Your task to perform on an android device: open app "Grab" Image 0: 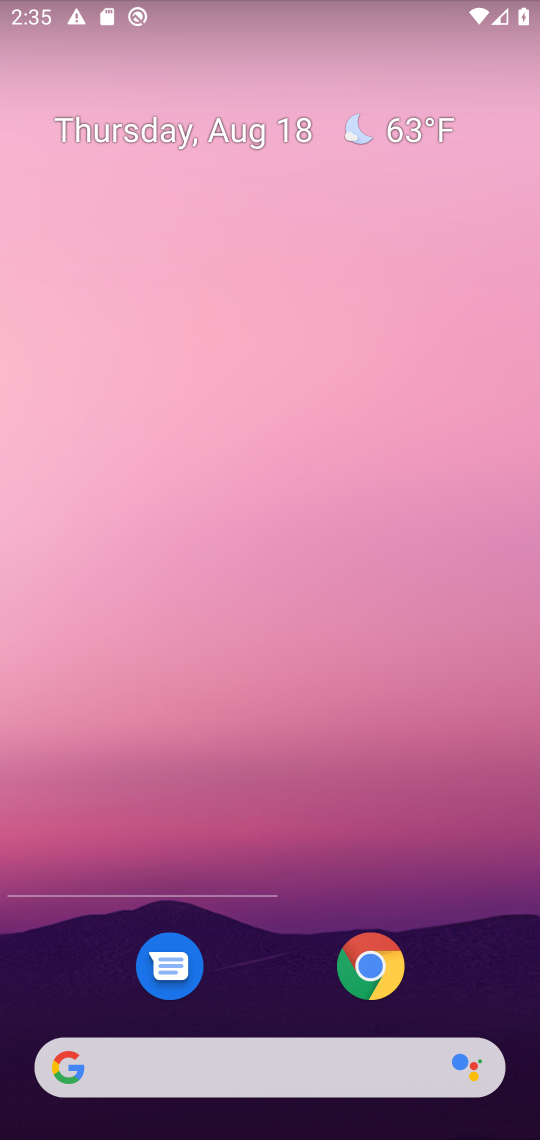
Step 0: press home button
Your task to perform on an android device: open app "Grab" Image 1: 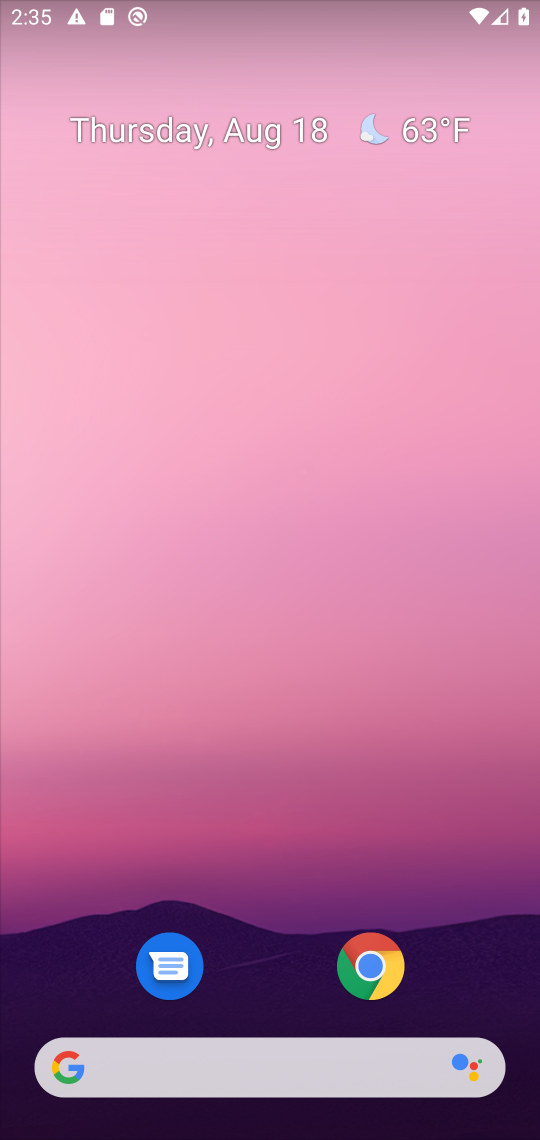
Step 1: drag from (293, 1014) to (353, 14)
Your task to perform on an android device: open app "Grab" Image 2: 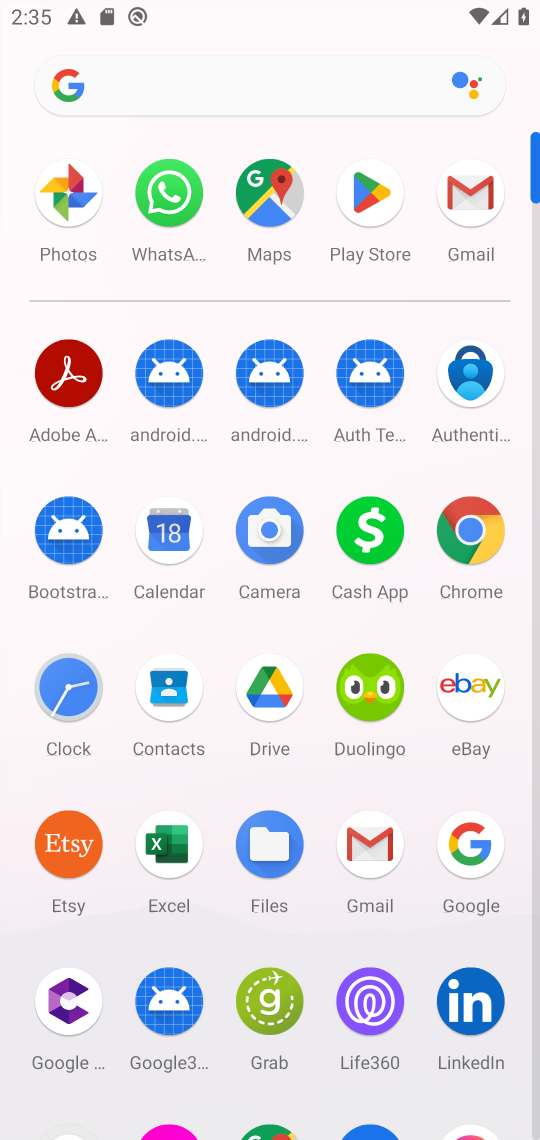
Step 2: click (368, 188)
Your task to perform on an android device: open app "Grab" Image 3: 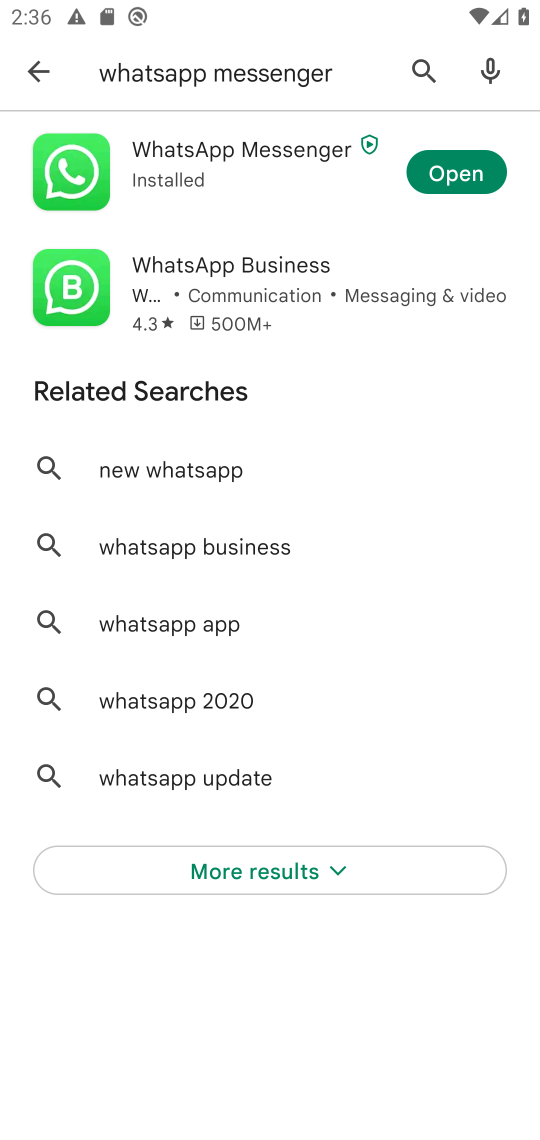
Step 3: click (425, 72)
Your task to perform on an android device: open app "Grab" Image 4: 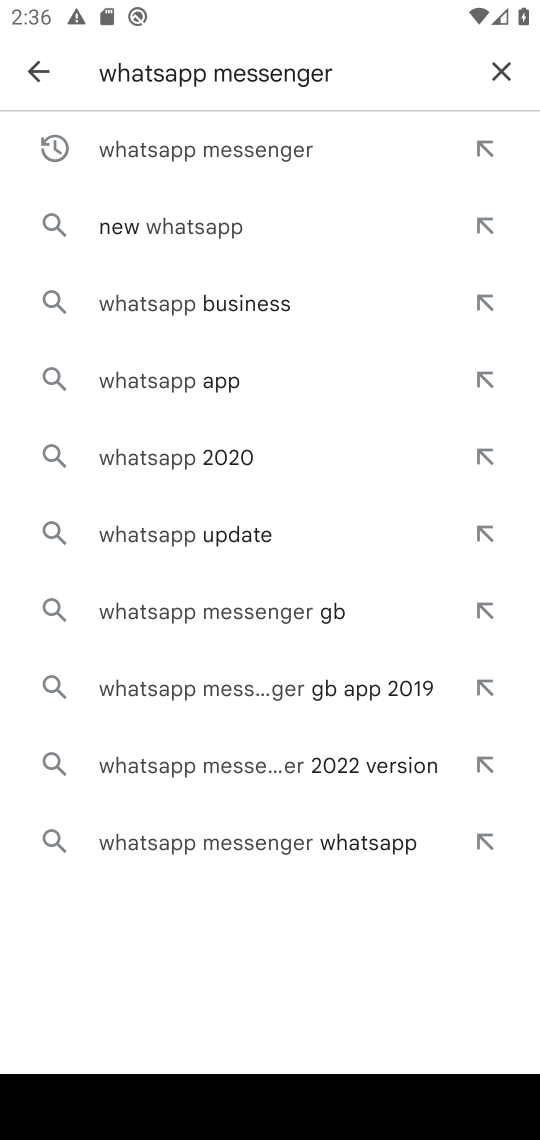
Step 4: type "grab"
Your task to perform on an android device: open app "Grab" Image 5: 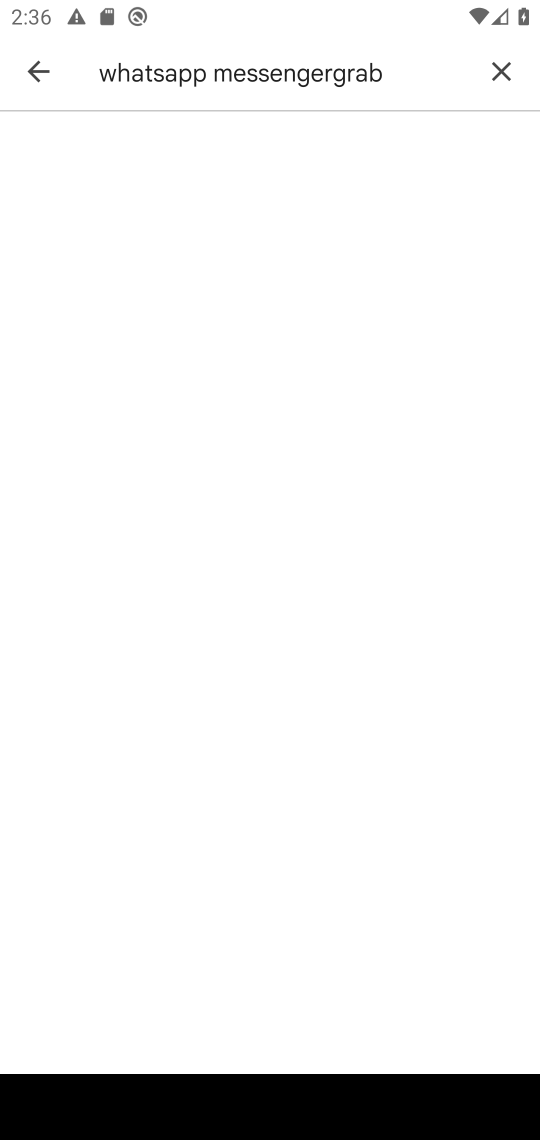
Step 5: click (510, 77)
Your task to perform on an android device: open app "Grab" Image 6: 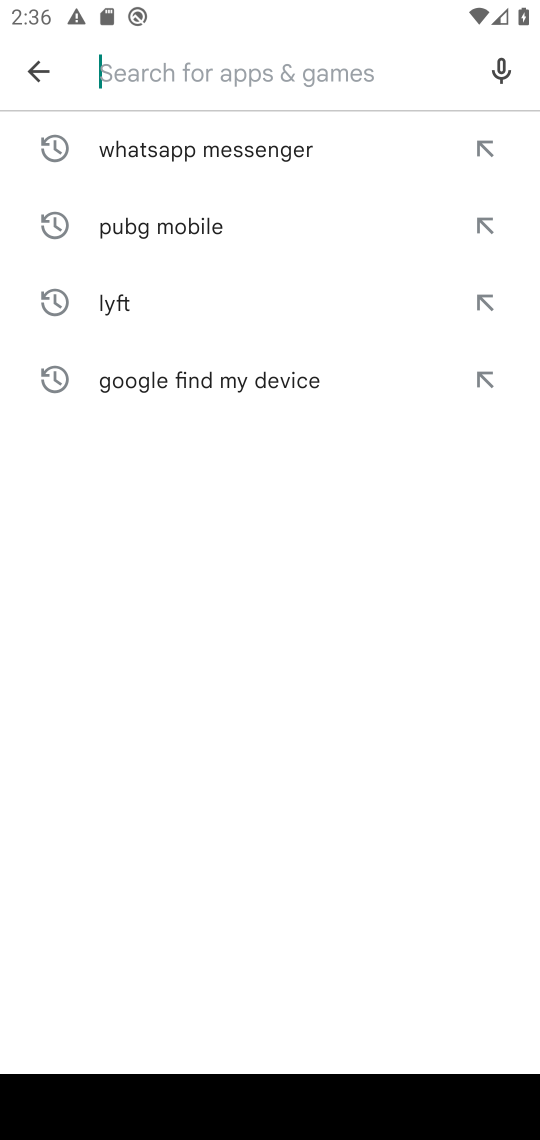
Step 6: type "grab"
Your task to perform on an android device: open app "Grab" Image 7: 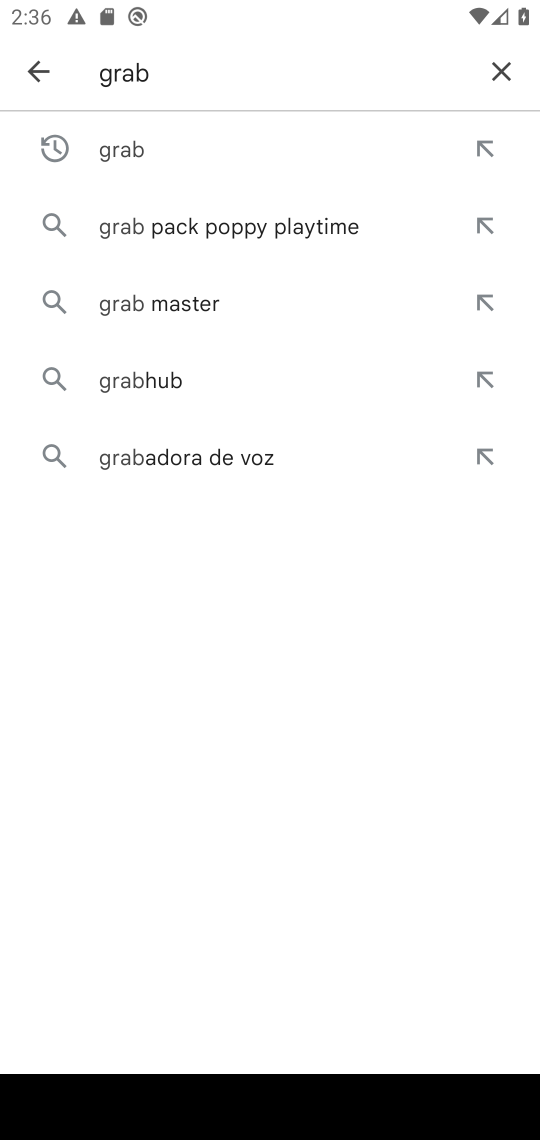
Step 7: click (186, 137)
Your task to perform on an android device: open app "Grab" Image 8: 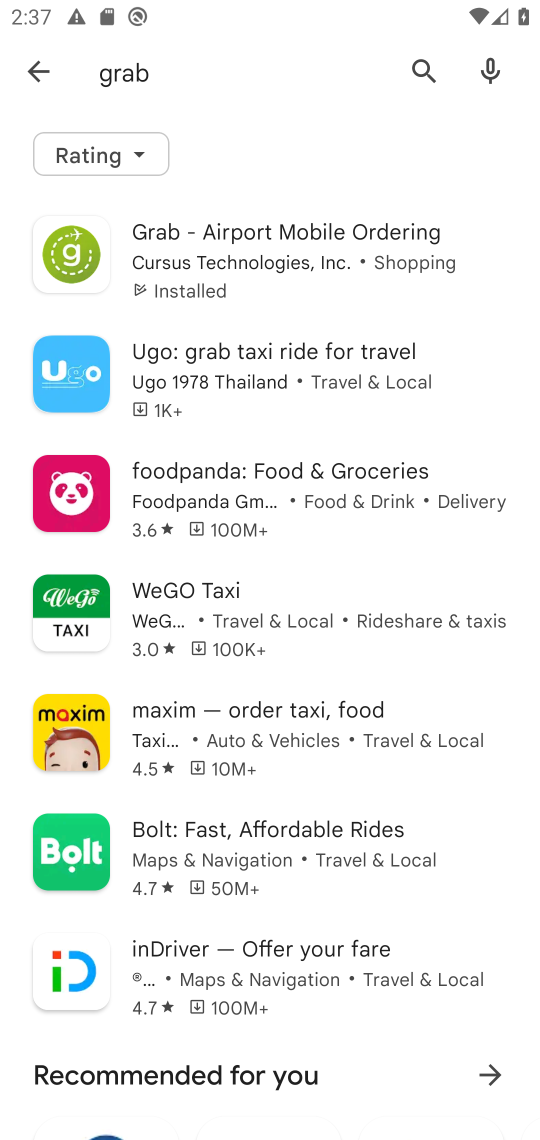
Step 8: click (187, 248)
Your task to perform on an android device: open app "Grab" Image 9: 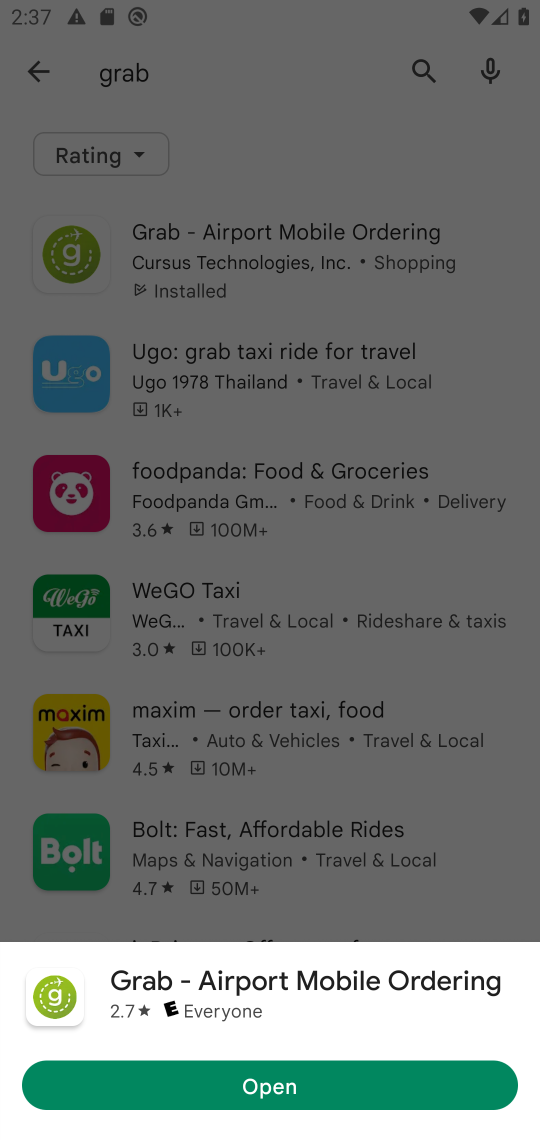
Step 9: click (323, 1082)
Your task to perform on an android device: open app "Grab" Image 10: 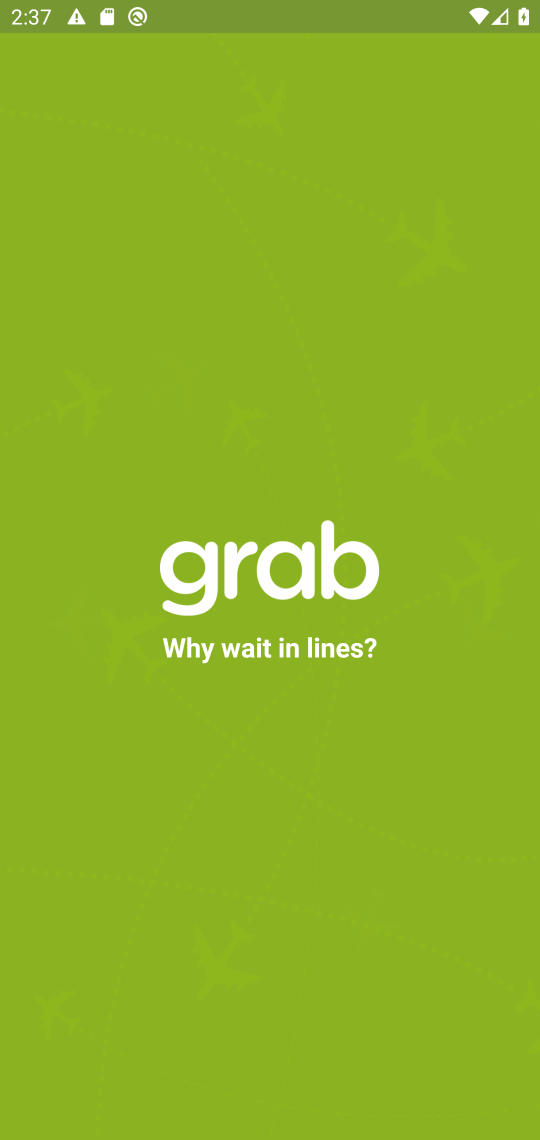
Step 10: task complete